Your task to perform on an android device: turn off notifications settings in the gmail app Image 0: 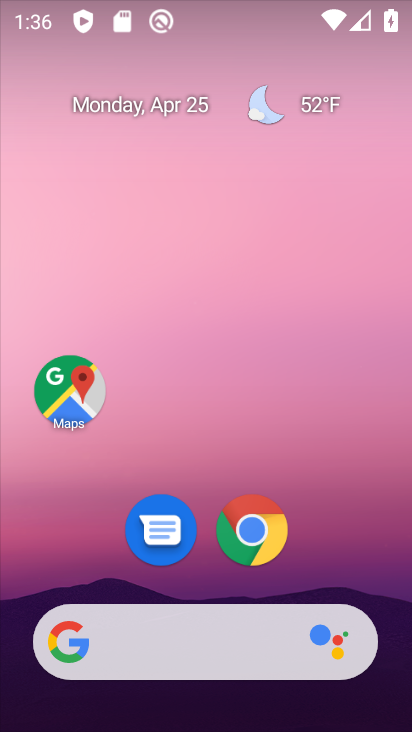
Step 0: drag from (381, 549) to (390, 177)
Your task to perform on an android device: turn off notifications settings in the gmail app Image 1: 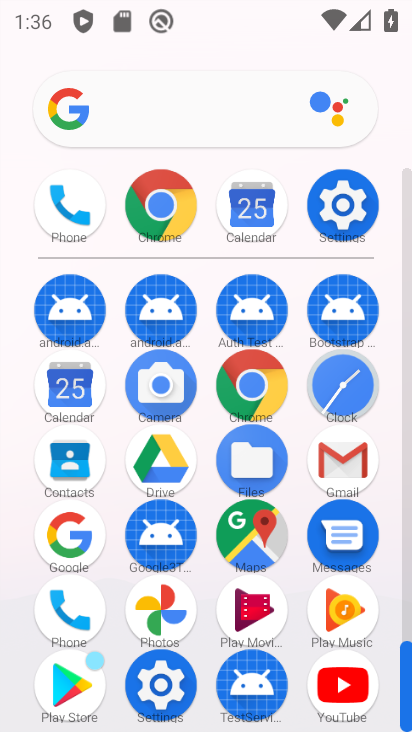
Step 1: click (360, 475)
Your task to perform on an android device: turn off notifications settings in the gmail app Image 2: 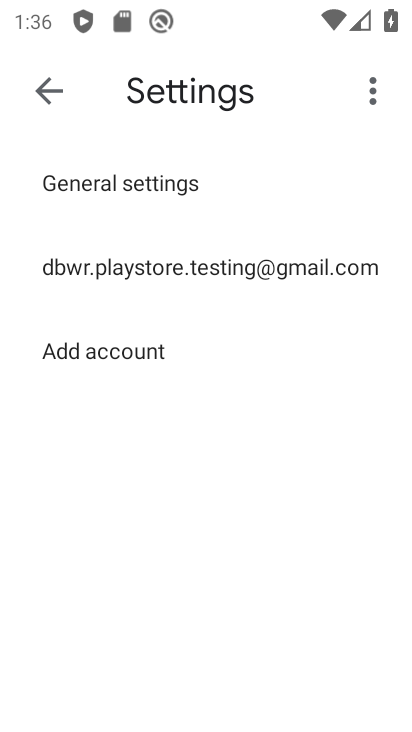
Step 2: click (158, 257)
Your task to perform on an android device: turn off notifications settings in the gmail app Image 3: 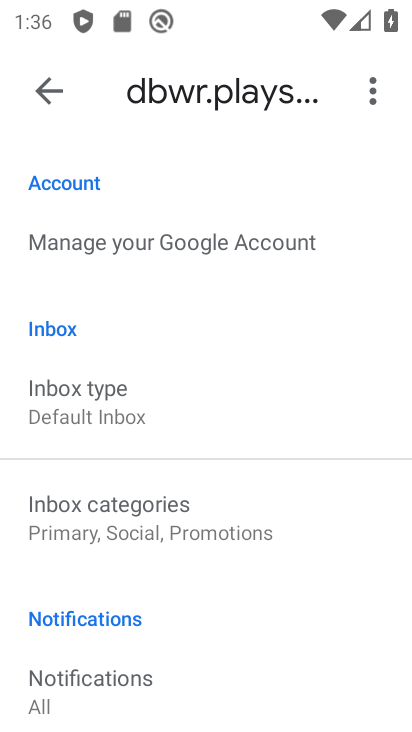
Step 3: drag from (194, 615) to (188, 357)
Your task to perform on an android device: turn off notifications settings in the gmail app Image 4: 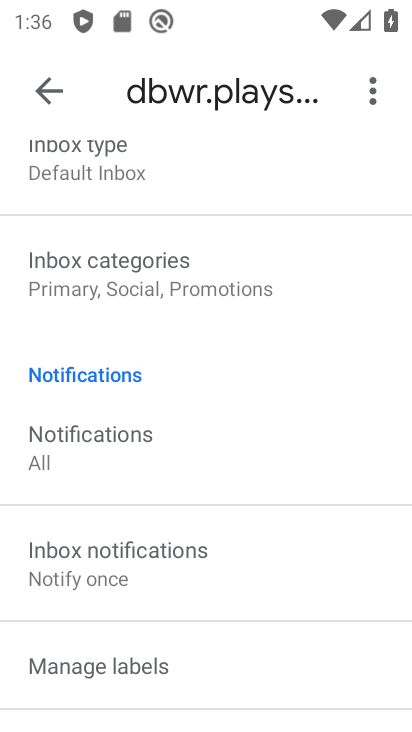
Step 4: drag from (211, 614) to (272, 362)
Your task to perform on an android device: turn off notifications settings in the gmail app Image 5: 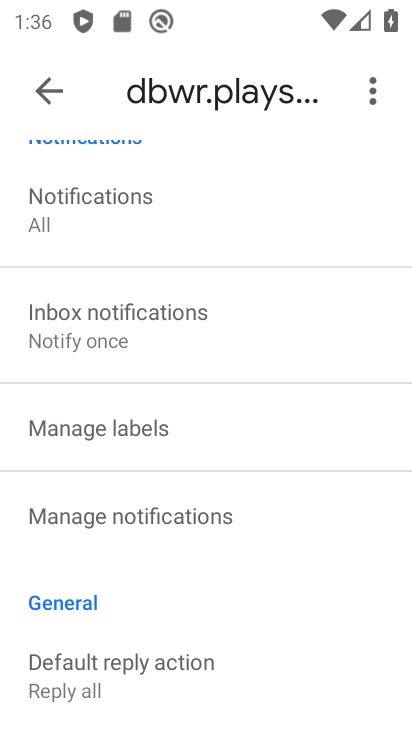
Step 5: click (126, 206)
Your task to perform on an android device: turn off notifications settings in the gmail app Image 6: 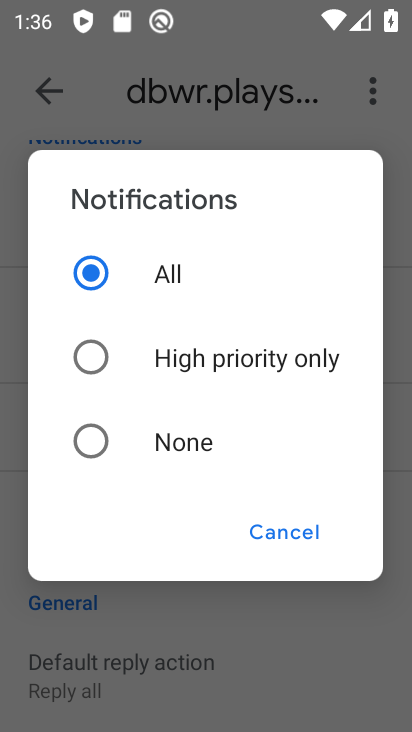
Step 6: click (93, 437)
Your task to perform on an android device: turn off notifications settings in the gmail app Image 7: 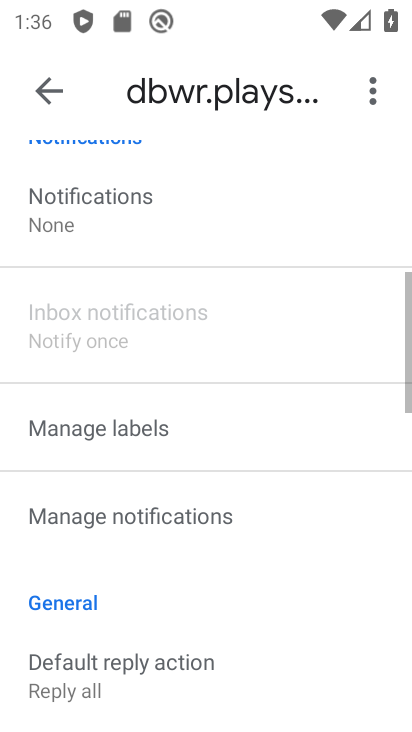
Step 7: task complete